Your task to perform on an android device: change keyboard looks Image 0: 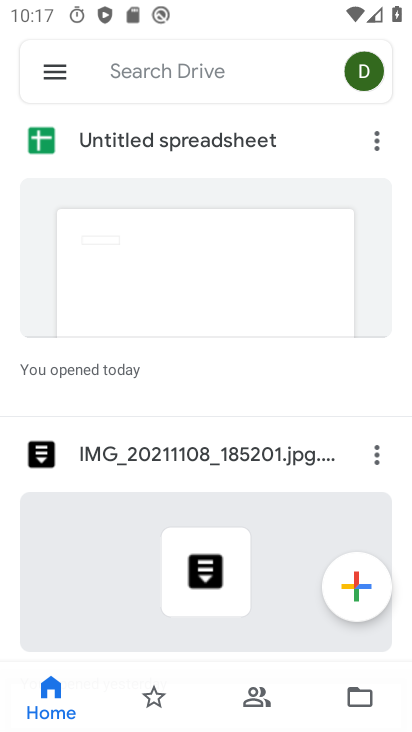
Step 0: press home button
Your task to perform on an android device: change keyboard looks Image 1: 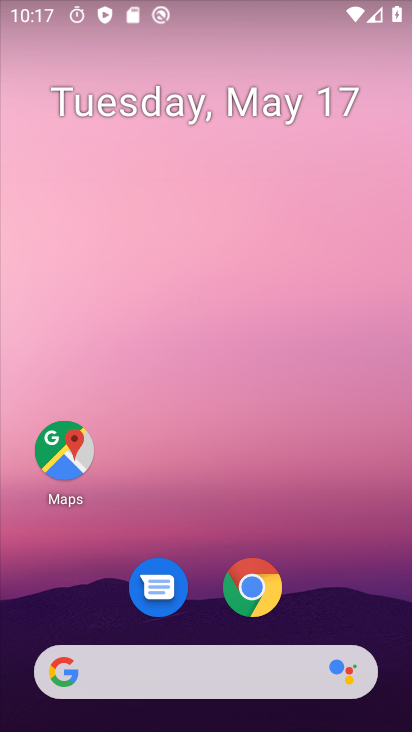
Step 1: drag from (350, 601) to (334, 165)
Your task to perform on an android device: change keyboard looks Image 2: 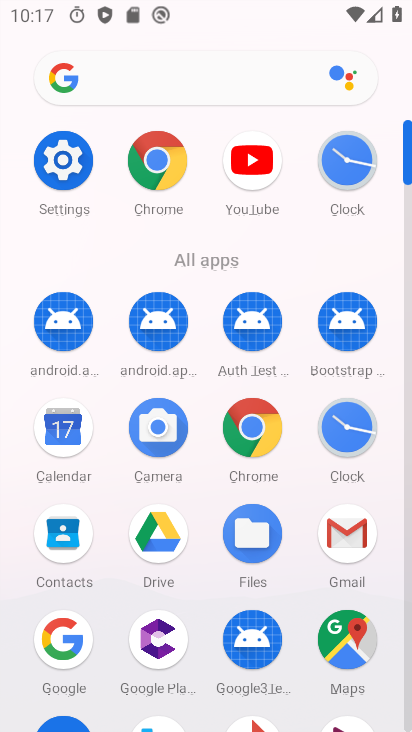
Step 2: click (76, 159)
Your task to perform on an android device: change keyboard looks Image 3: 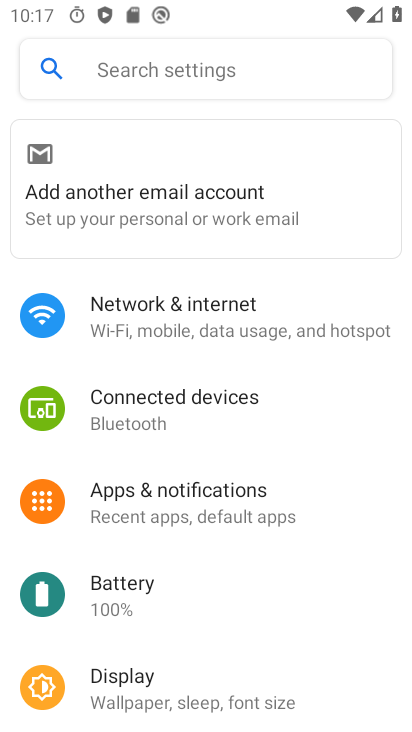
Step 3: drag from (229, 629) to (240, 238)
Your task to perform on an android device: change keyboard looks Image 4: 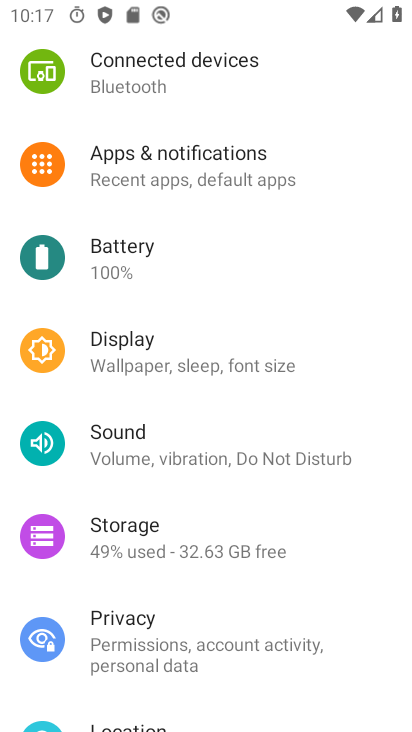
Step 4: drag from (284, 525) to (280, 161)
Your task to perform on an android device: change keyboard looks Image 5: 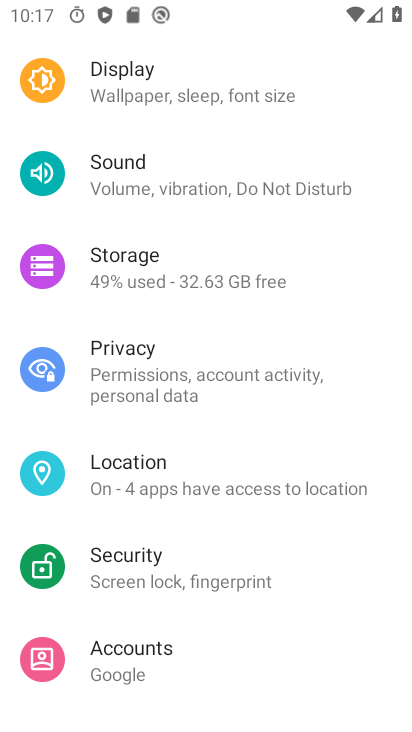
Step 5: drag from (270, 650) to (272, 223)
Your task to perform on an android device: change keyboard looks Image 6: 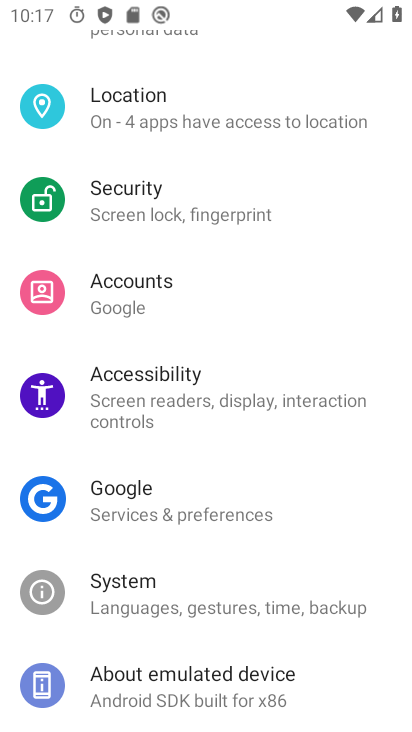
Step 6: click (225, 601)
Your task to perform on an android device: change keyboard looks Image 7: 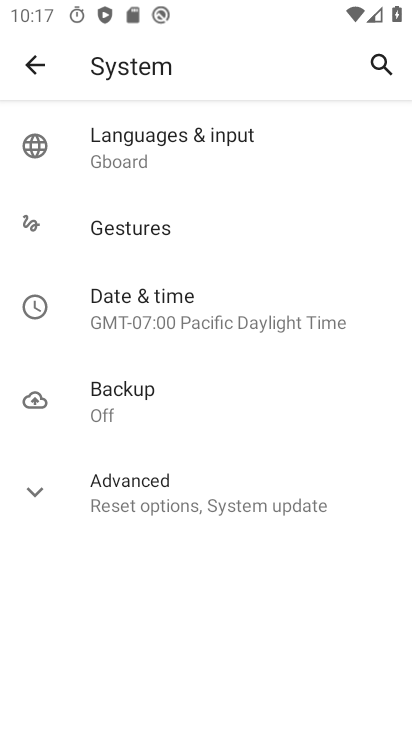
Step 7: click (182, 139)
Your task to perform on an android device: change keyboard looks Image 8: 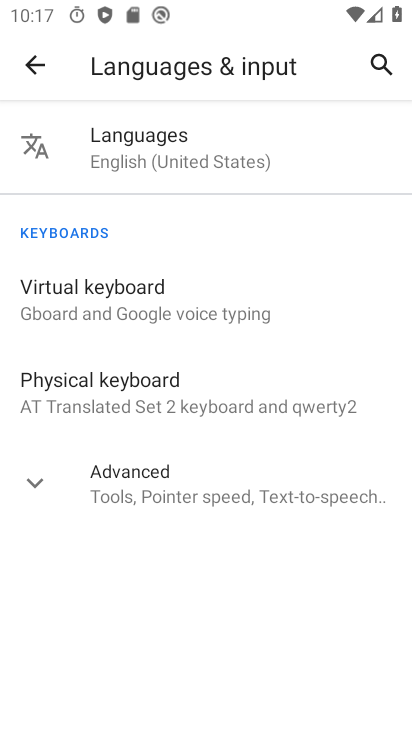
Step 8: click (123, 305)
Your task to perform on an android device: change keyboard looks Image 9: 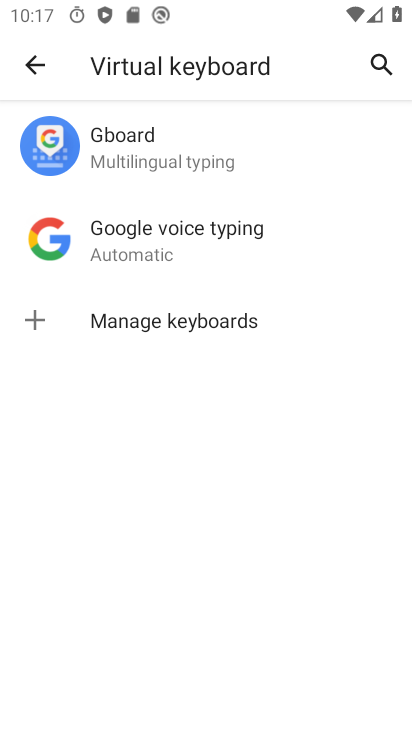
Step 9: click (170, 141)
Your task to perform on an android device: change keyboard looks Image 10: 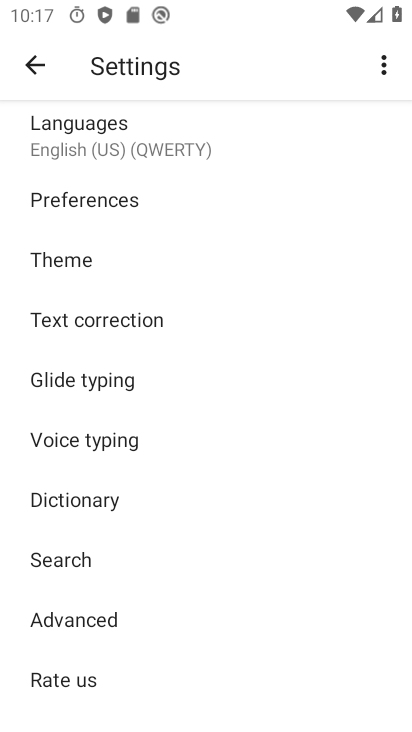
Step 10: click (92, 269)
Your task to perform on an android device: change keyboard looks Image 11: 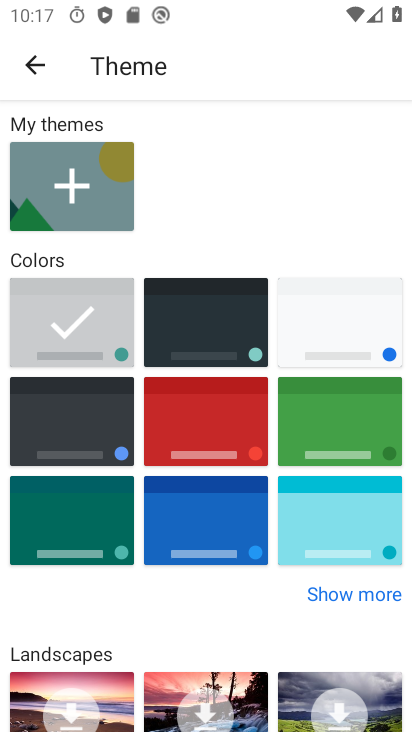
Step 11: drag from (220, 592) to (224, 214)
Your task to perform on an android device: change keyboard looks Image 12: 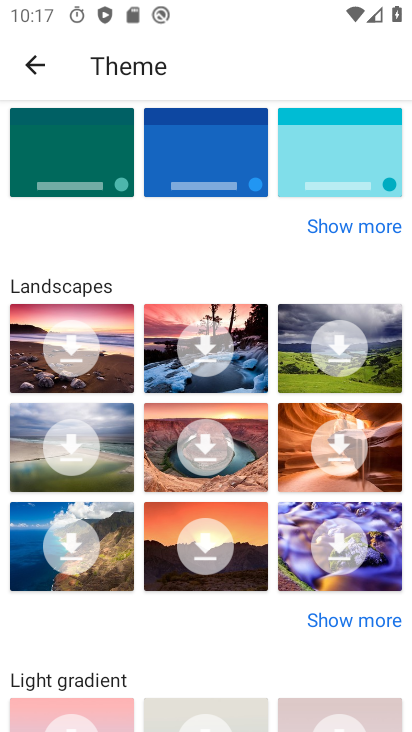
Step 12: click (235, 127)
Your task to perform on an android device: change keyboard looks Image 13: 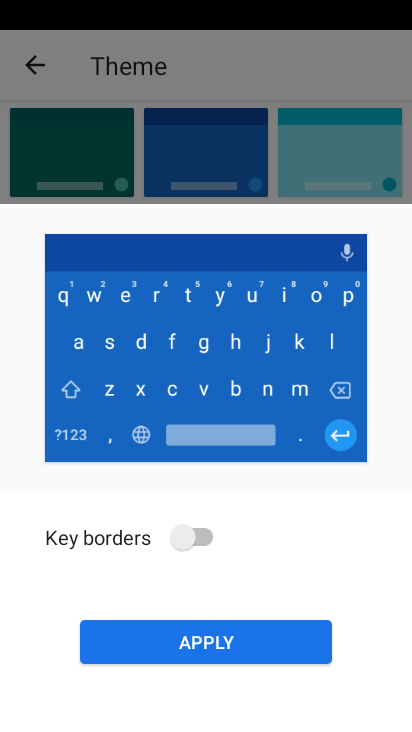
Step 13: click (242, 654)
Your task to perform on an android device: change keyboard looks Image 14: 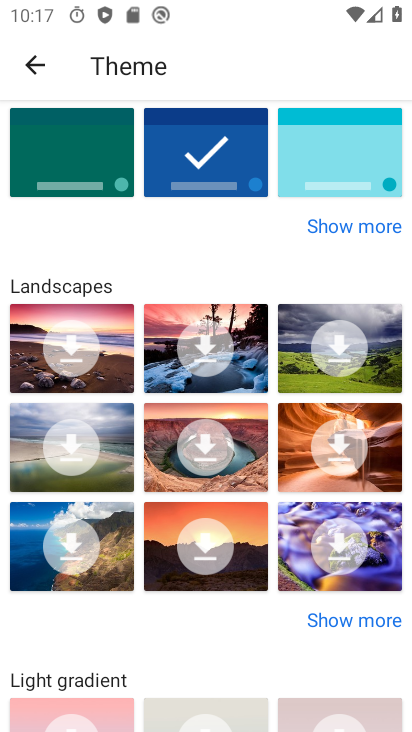
Step 14: task complete